Your task to perform on an android device: add a contact Image 0: 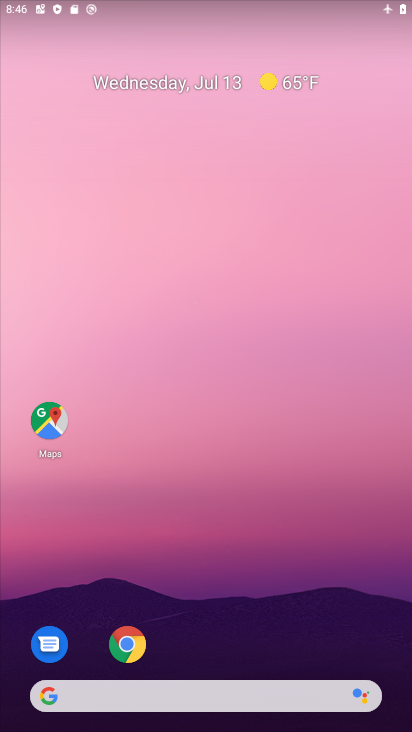
Step 0: drag from (315, 514) to (266, 6)
Your task to perform on an android device: add a contact Image 1: 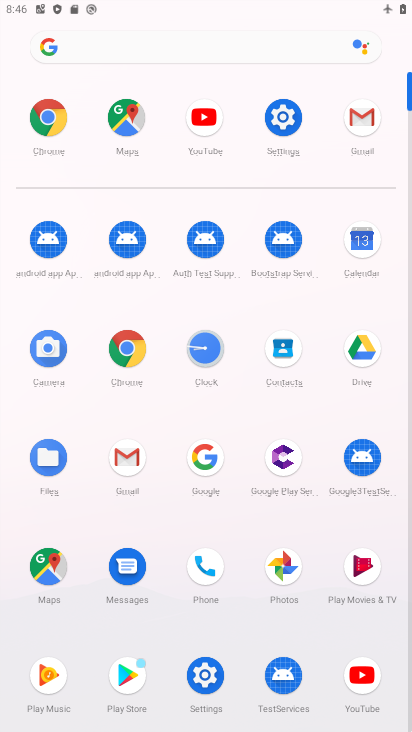
Step 1: click (200, 561)
Your task to perform on an android device: add a contact Image 2: 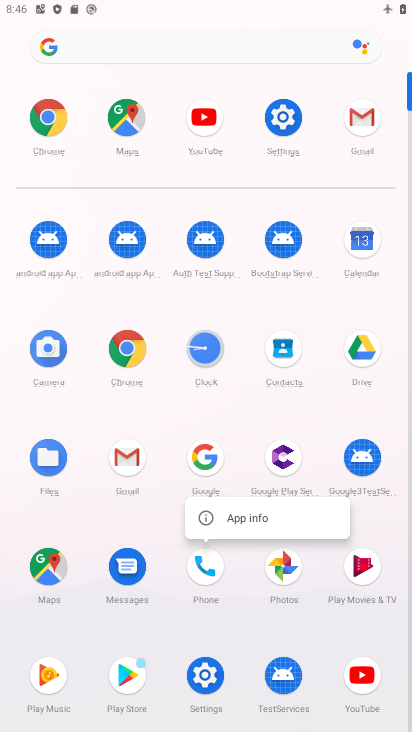
Step 2: click (191, 563)
Your task to perform on an android device: add a contact Image 3: 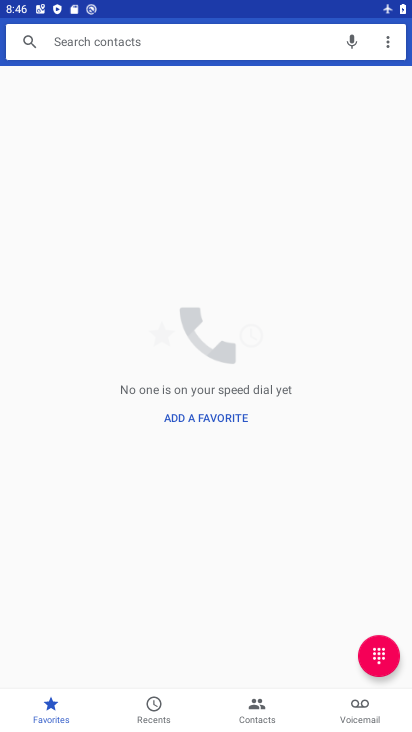
Step 3: click (274, 705)
Your task to perform on an android device: add a contact Image 4: 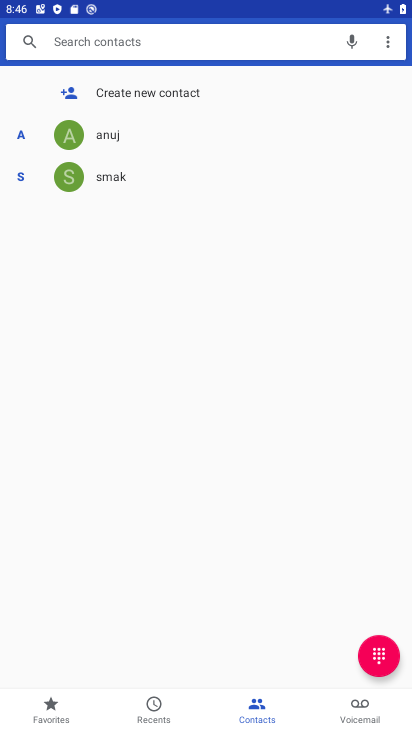
Step 4: click (135, 78)
Your task to perform on an android device: add a contact Image 5: 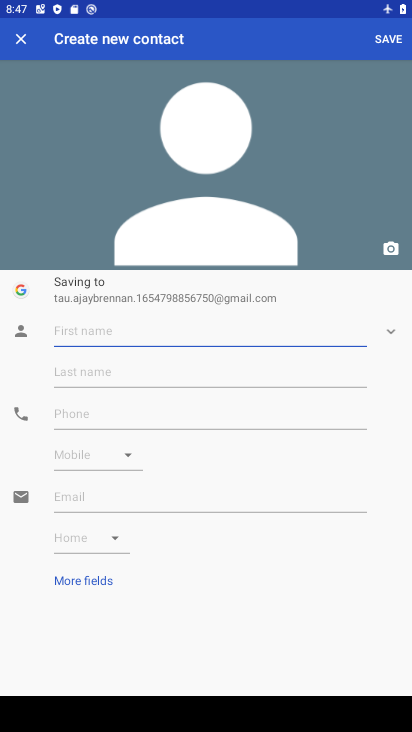
Step 5: type "tyyyyy"
Your task to perform on an android device: add a contact Image 6: 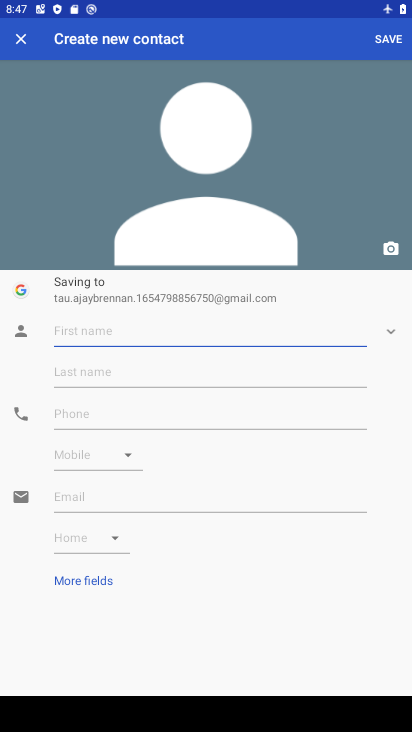
Step 6: click (71, 410)
Your task to perform on an android device: add a contact Image 7: 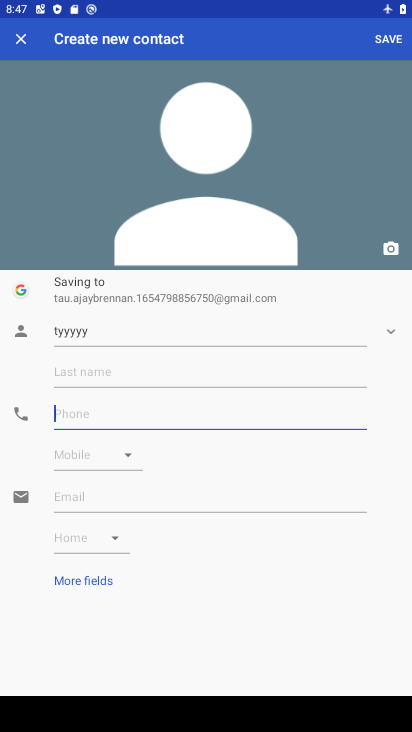
Step 7: click (94, 410)
Your task to perform on an android device: add a contact Image 8: 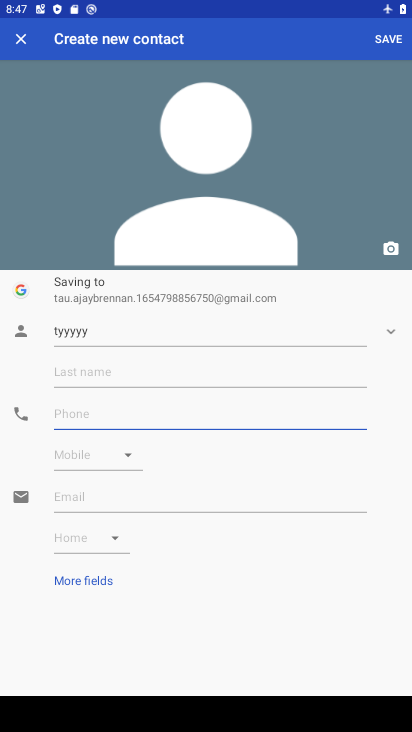
Step 8: type "45678765"
Your task to perform on an android device: add a contact Image 9: 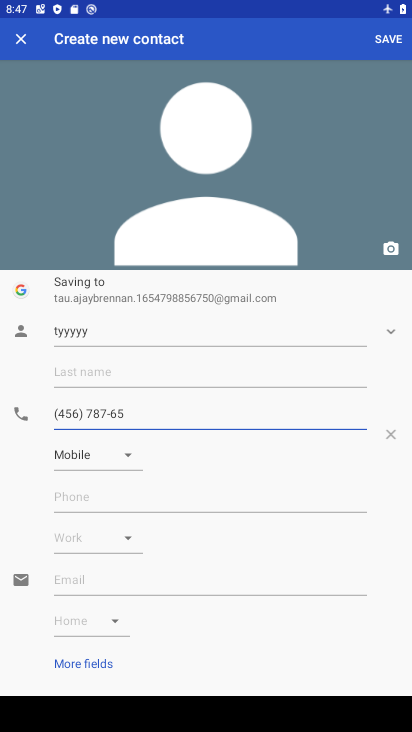
Step 9: click (395, 30)
Your task to perform on an android device: add a contact Image 10: 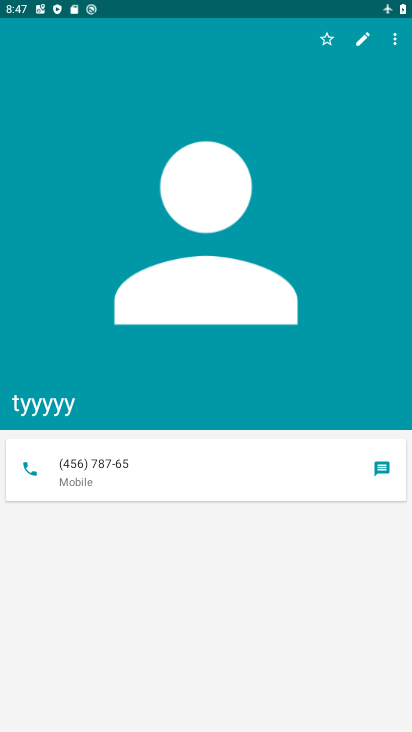
Step 10: task complete